Your task to perform on an android device: Show me the alarms in the clock app Image 0: 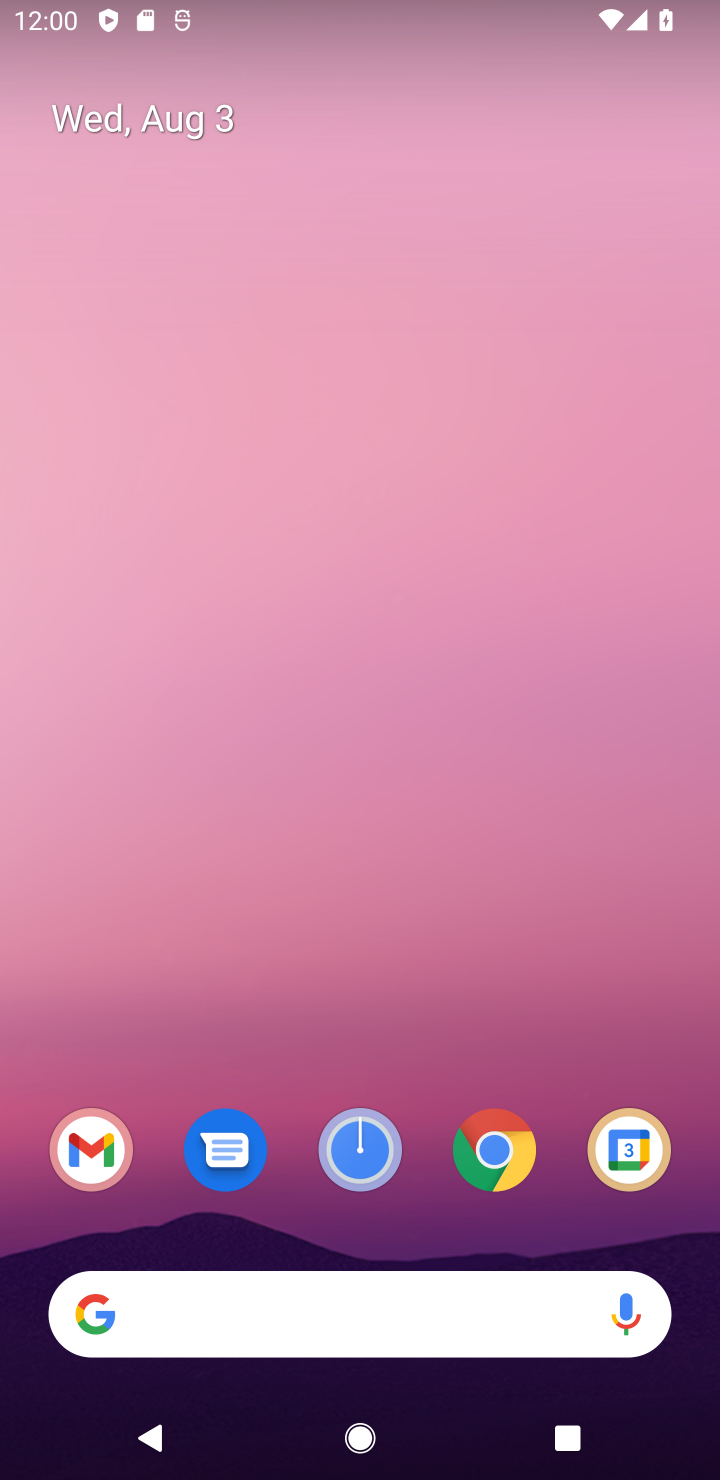
Step 0: press home button
Your task to perform on an android device: Show me the alarms in the clock app Image 1: 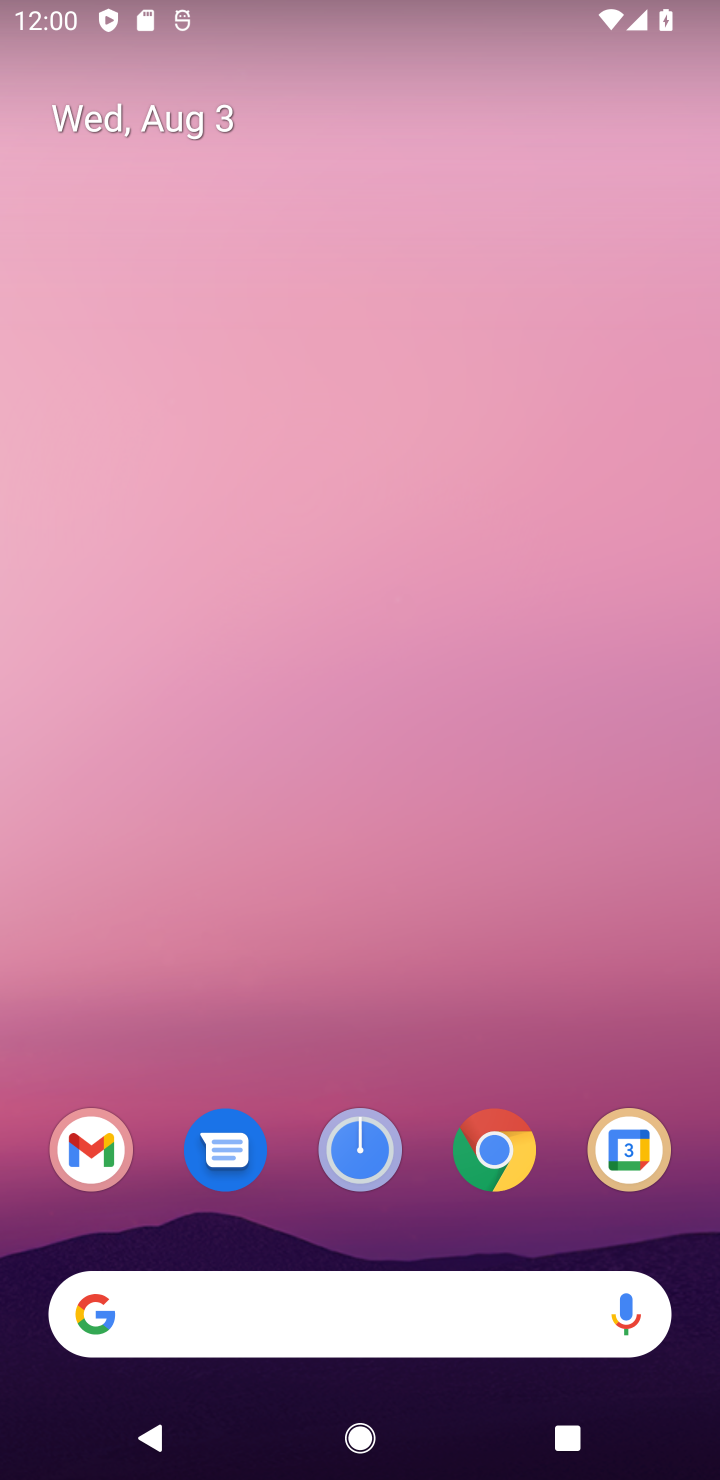
Step 1: drag from (424, 1063) to (506, 419)
Your task to perform on an android device: Show me the alarms in the clock app Image 2: 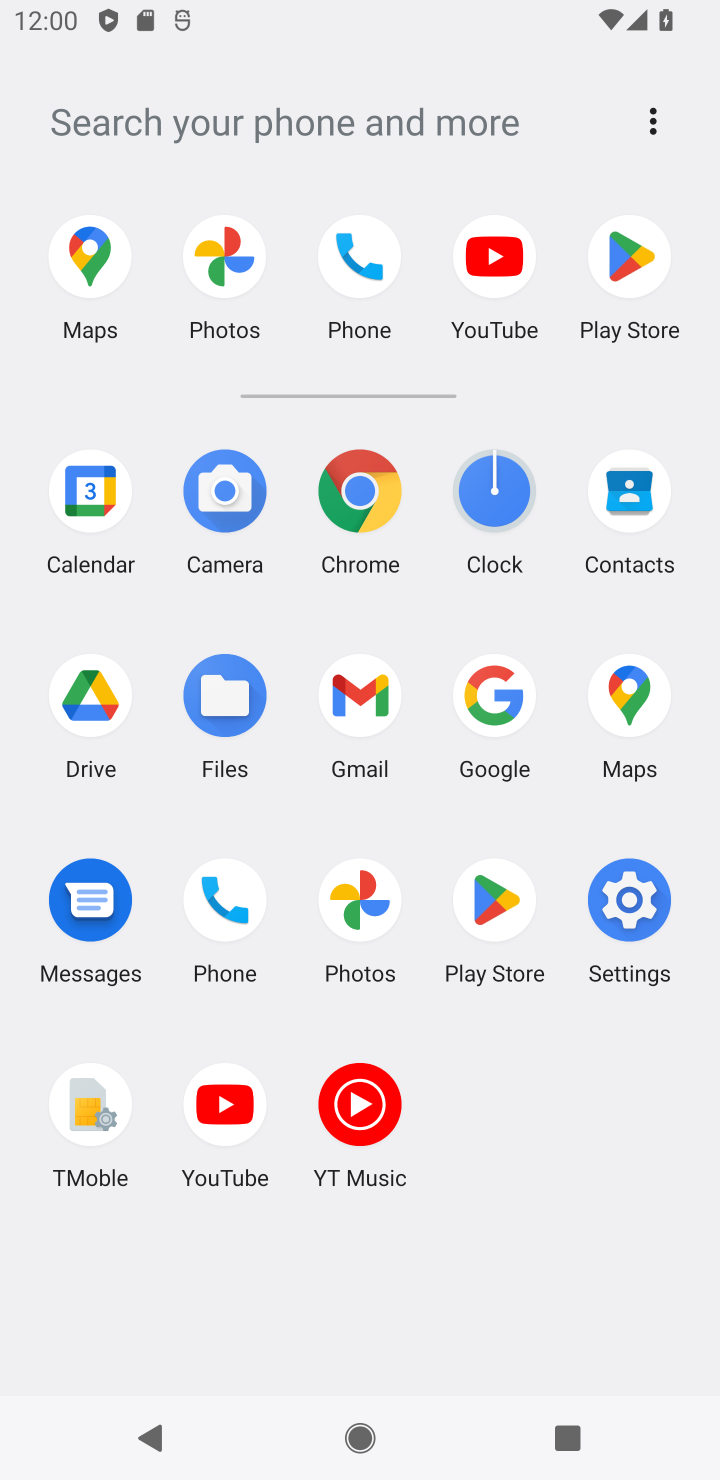
Step 2: click (491, 477)
Your task to perform on an android device: Show me the alarms in the clock app Image 3: 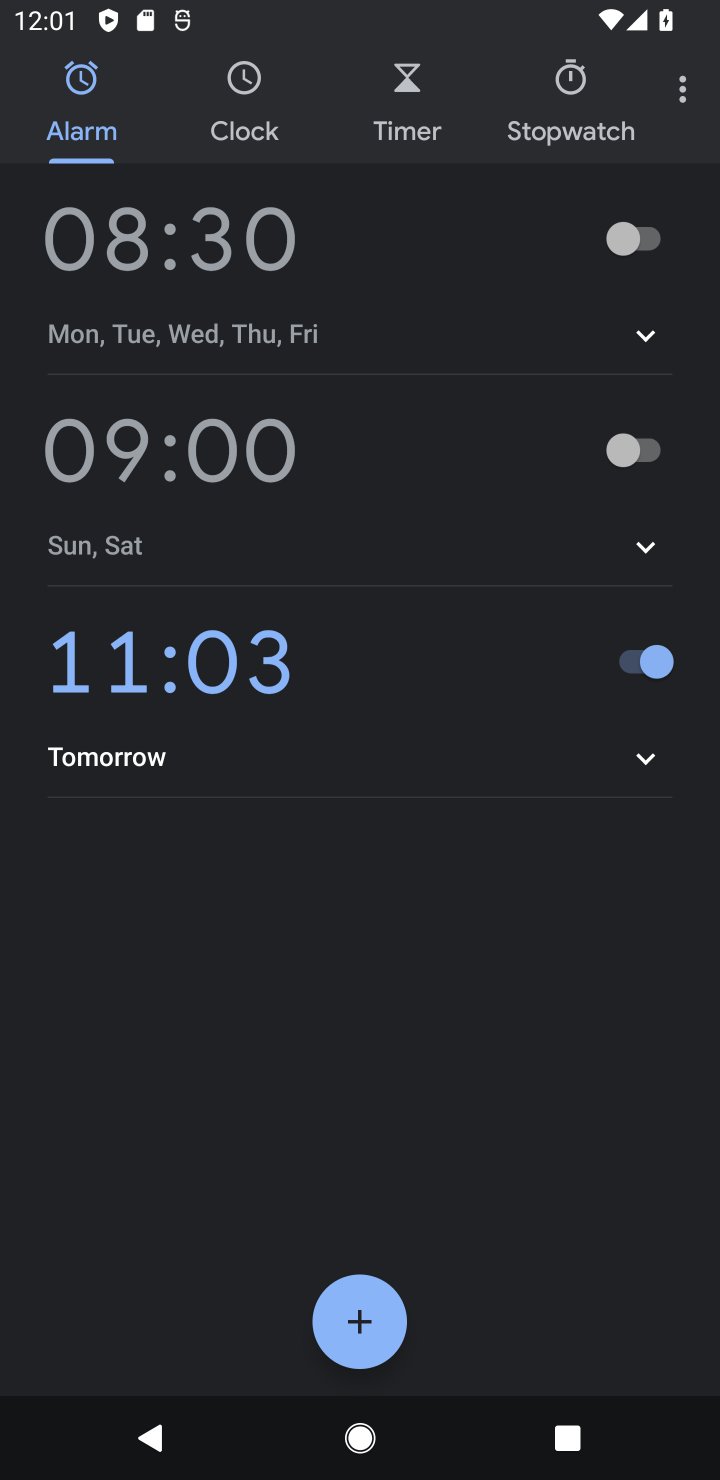
Step 3: task complete